Your task to perform on an android device: Open Maps and search for coffee Image 0: 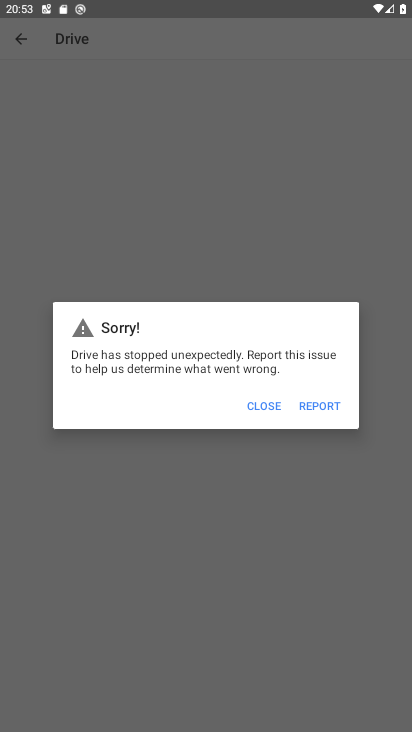
Step 0: press home button
Your task to perform on an android device: Open Maps and search for coffee Image 1: 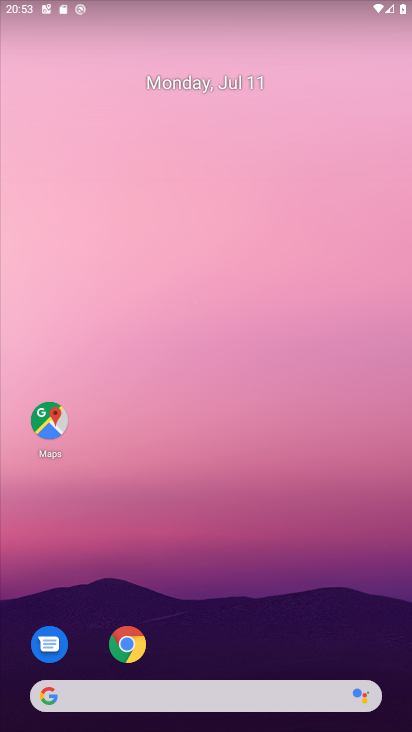
Step 1: drag from (213, 689) to (215, 118)
Your task to perform on an android device: Open Maps and search for coffee Image 2: 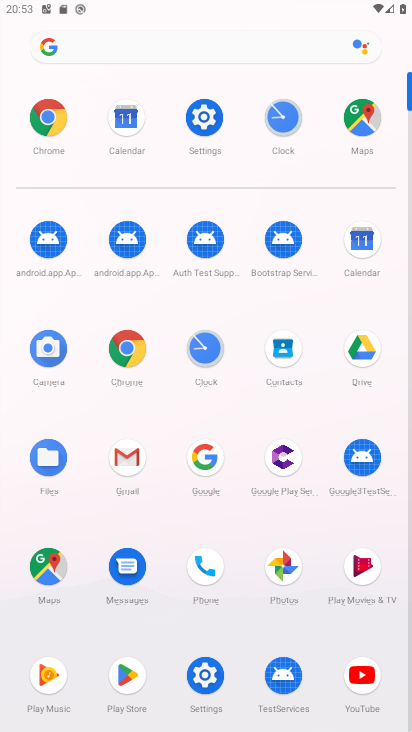
Step 2: click (367, 108)
Your task to perform on an android device: Open Maps and search for coffee Image 3: 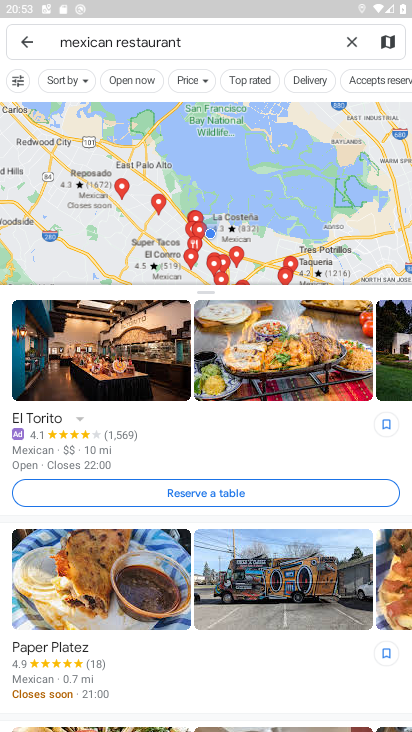
Step 3: click (27, 36)
Your task to perform on an android device: Open Maps and search for coffee Image 4: 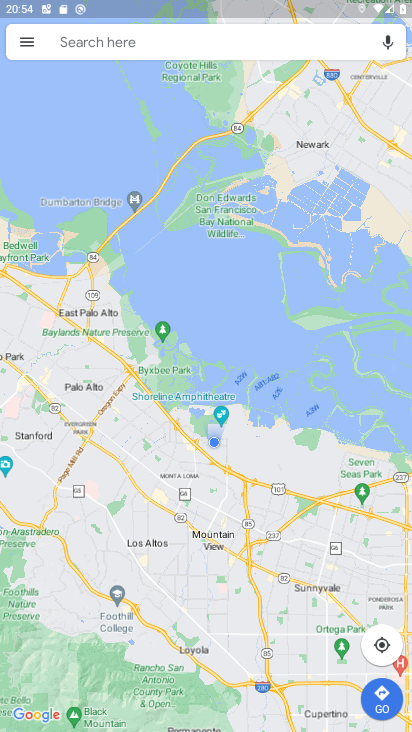
Step 4: click (186, 31)
Your task to perform on an android device: Open Maps and search for coffee Image 5: 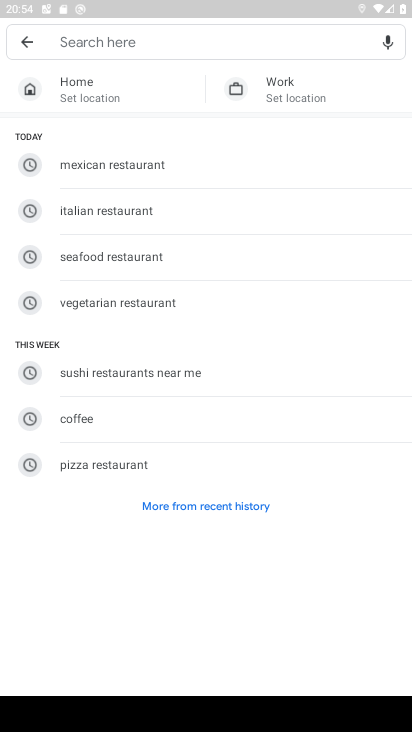
Step 5: type " coffee "
Your task to perform on an android device: Open Maps and search for coffee Image 6: 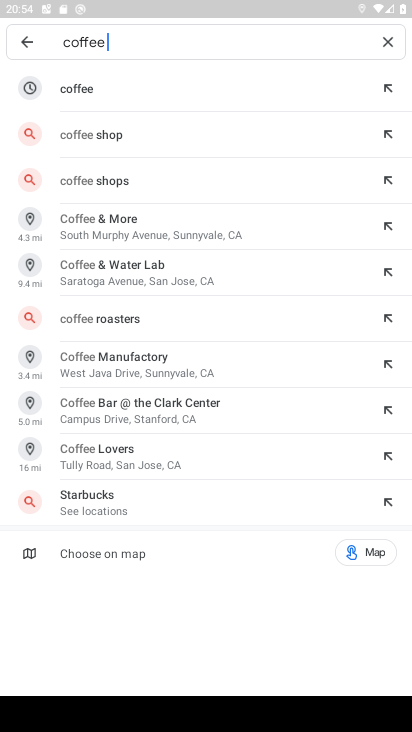
Step 6: click (178, 74)
Your task to perform on an android device: Open Maps and search for coffee Image 7: 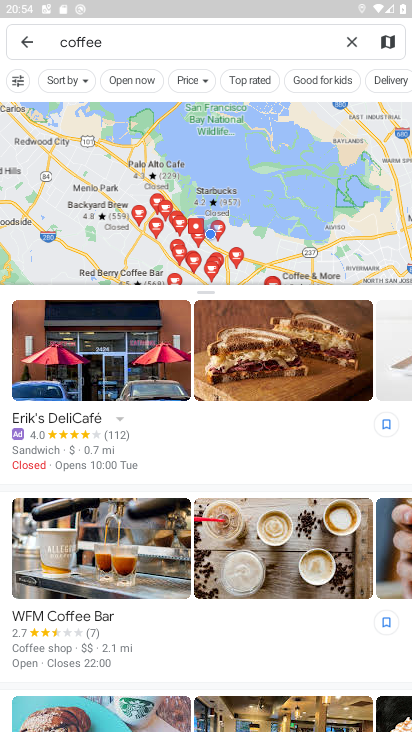
Step 7: task complete